Your task to perform on an android device: turn off wifi Image 0: 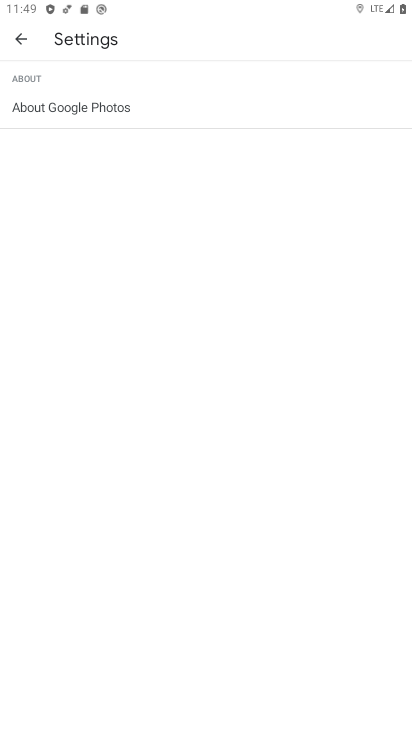
Step 0: press home button
Your task to perform on an android device: turn off wifi Image 1: 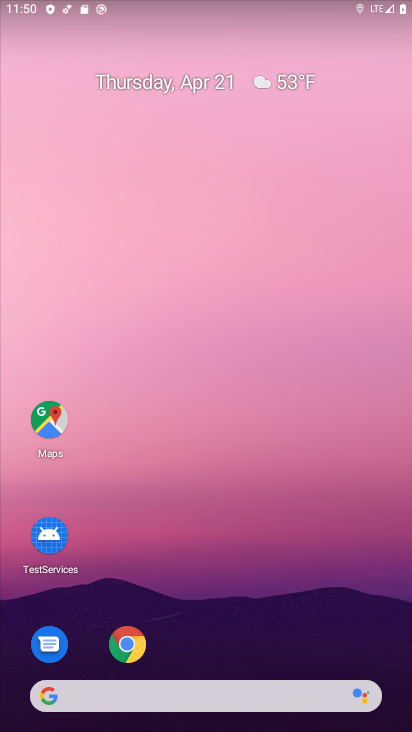
Step 1: drag from (201, 575) to (208, 105)
Your task to perform on an android device: turn off wifi Image 2: 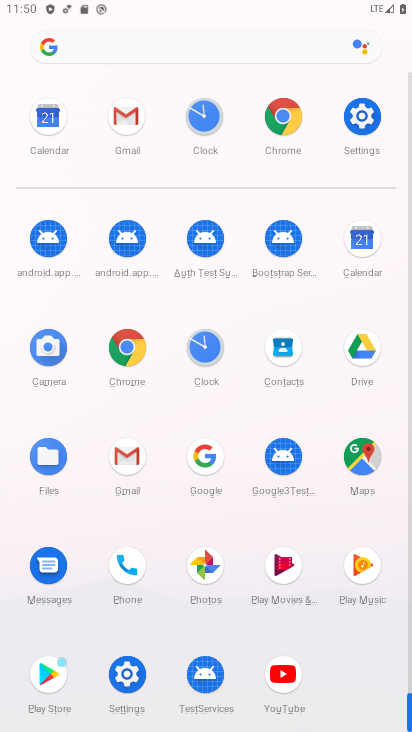
Step 2: click (365, 115)
Your task to perform on an android device: turn off wifi Image 3: 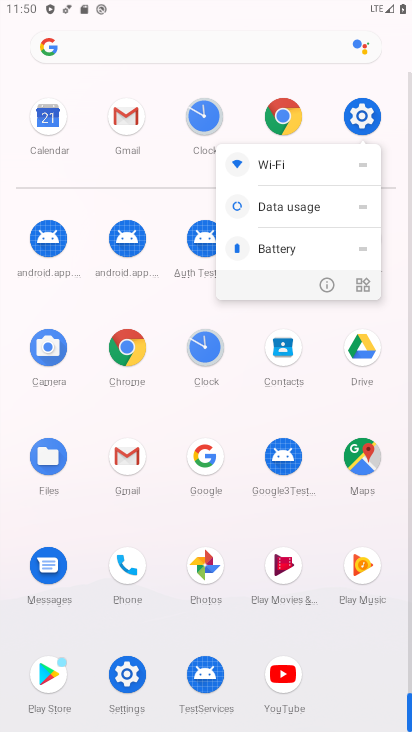
Step 3: click (119, 680)
Your task to perform on an android device: turn off wifi Image 4: 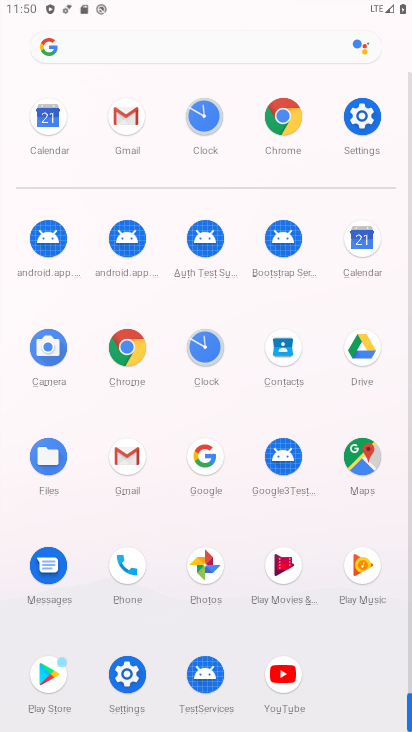
Step 4: click (121, 672)
Your task to perform on an android device: turn off wifi Image 5: 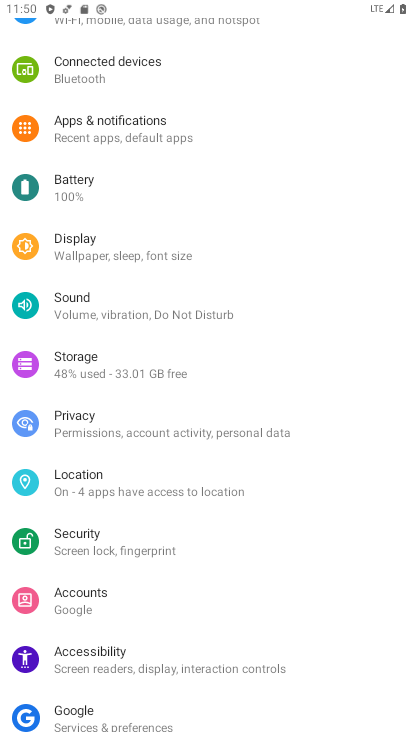
Step 5: drag from (152, 60) to (243, 533)
Your task to perform on an android device: turn off wifi Image 6: 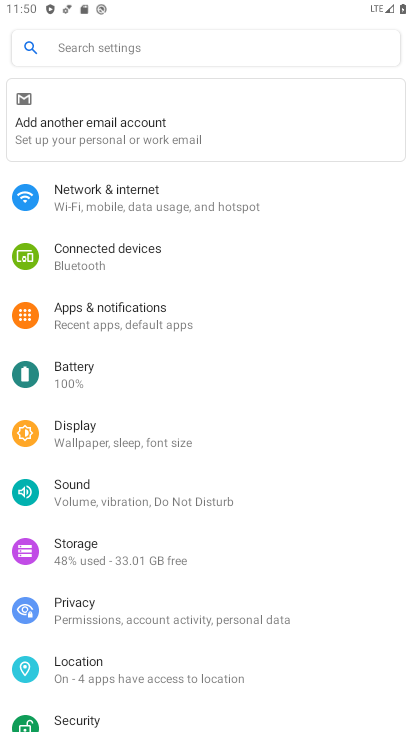
Step 6: click (155, 199)
Your task to perform on an android device: turn off wifi Image 7: 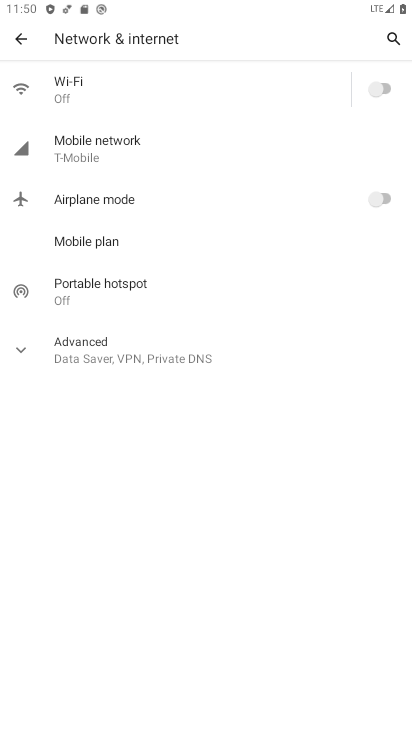
Step 7: click (142, 88)
Your task to perform on an android device: turn off wifi Image 8: 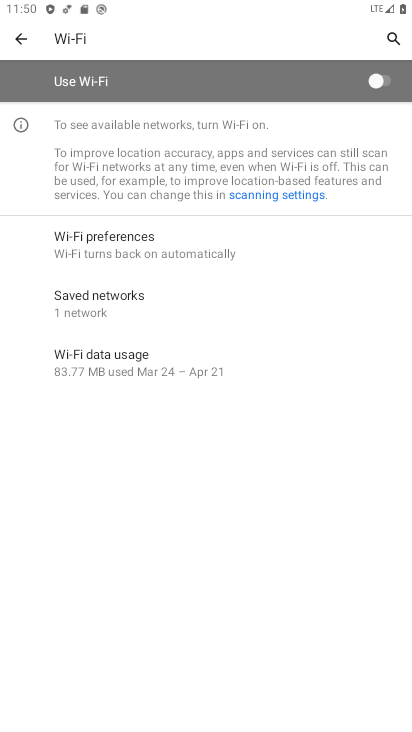
Step 8: task complete